Your task to perform on an android device: toggle pop-ups in chrome Image 0: 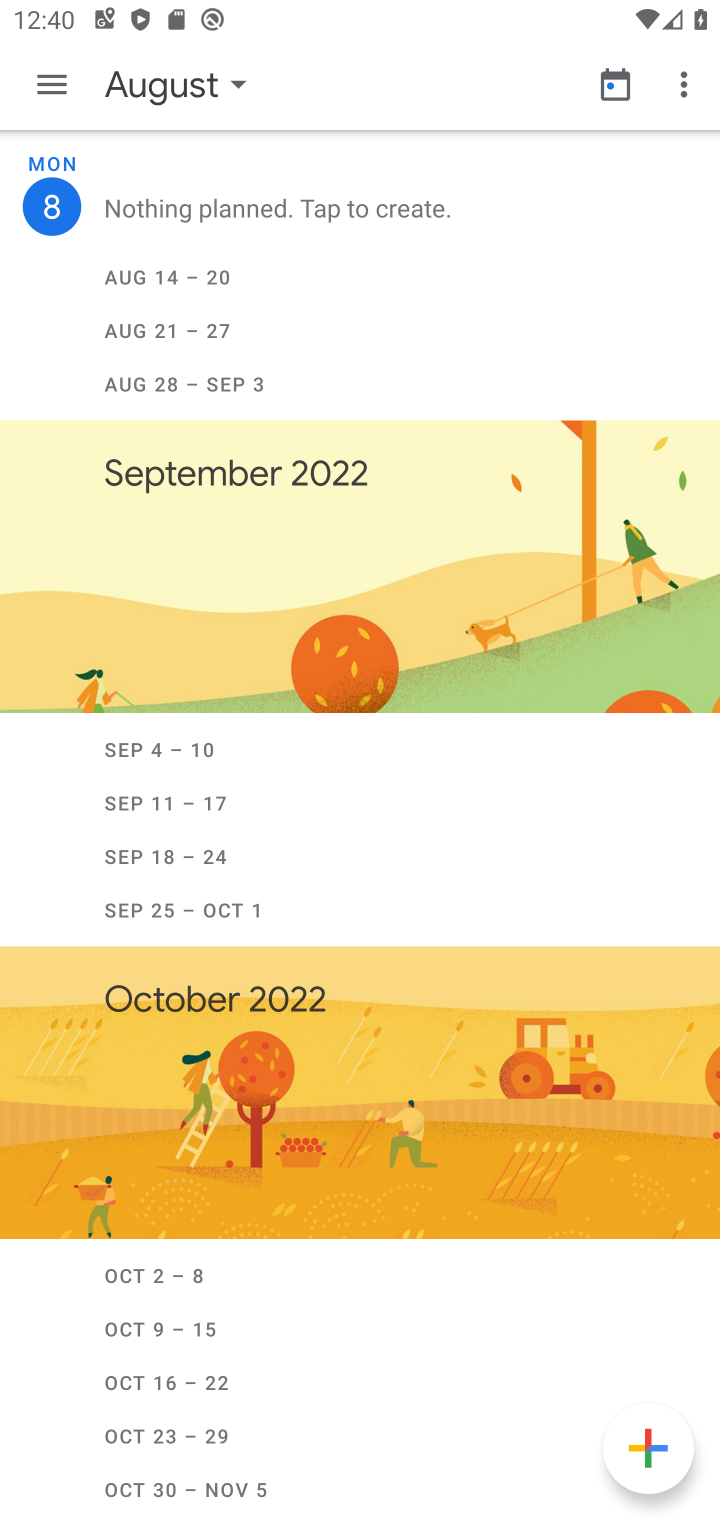
Step 0: press back button
Your task to perform on an android device: toggle pop-ups in chrome Image 1: 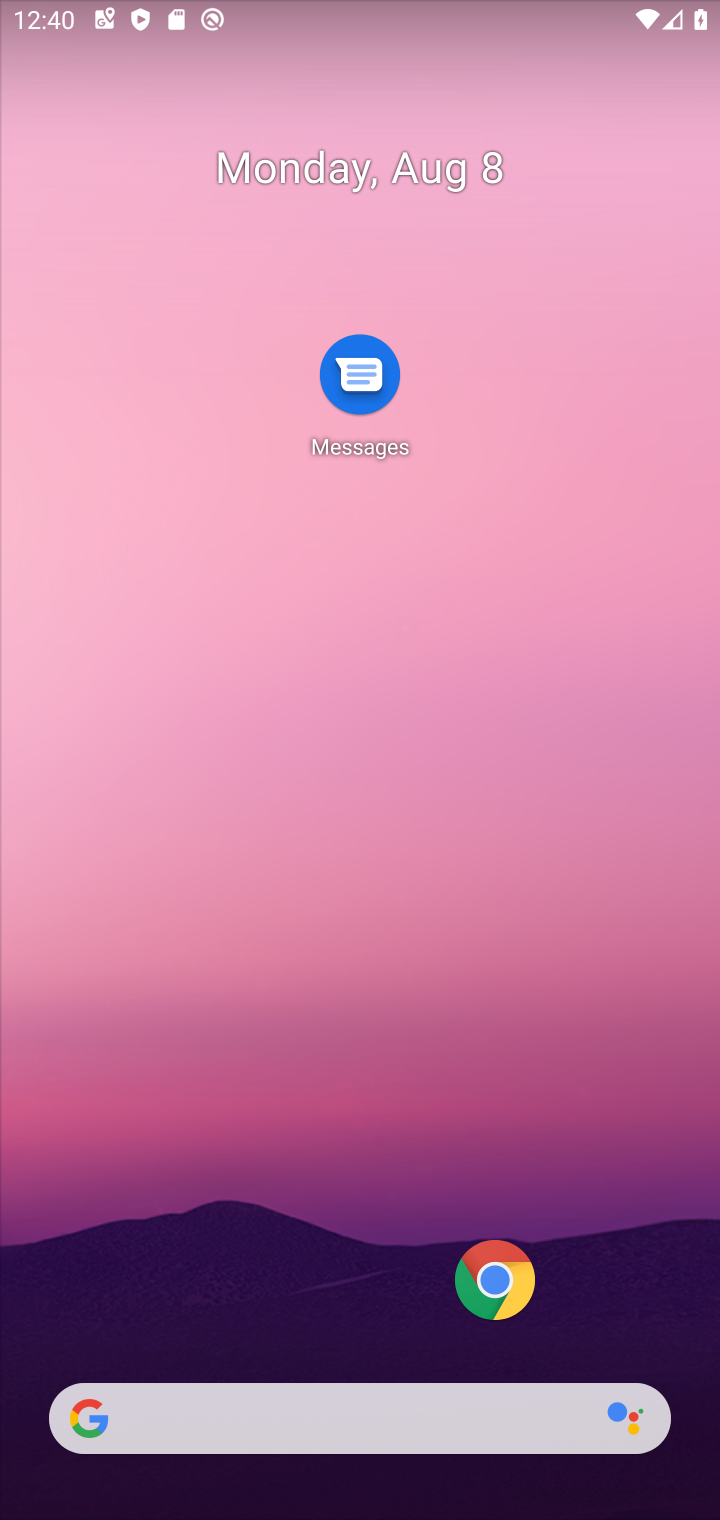
Step 1: click (510, 1276)
Your task to perform on an android device: toggle pop-ups in chrome Image 2: 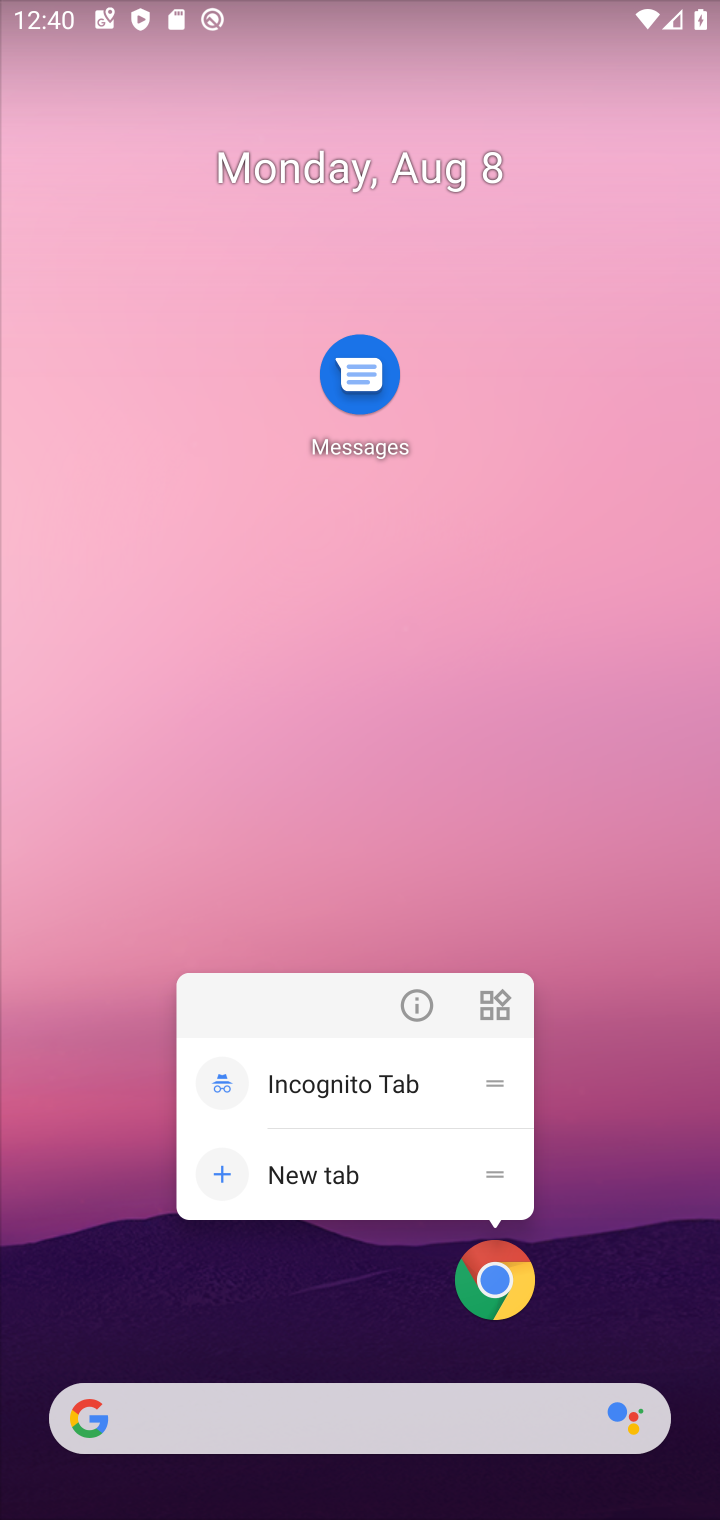
Step 2: click (486, 1278)
Your task to perform on an android device: toggle pop-ups in chrome Image 3: 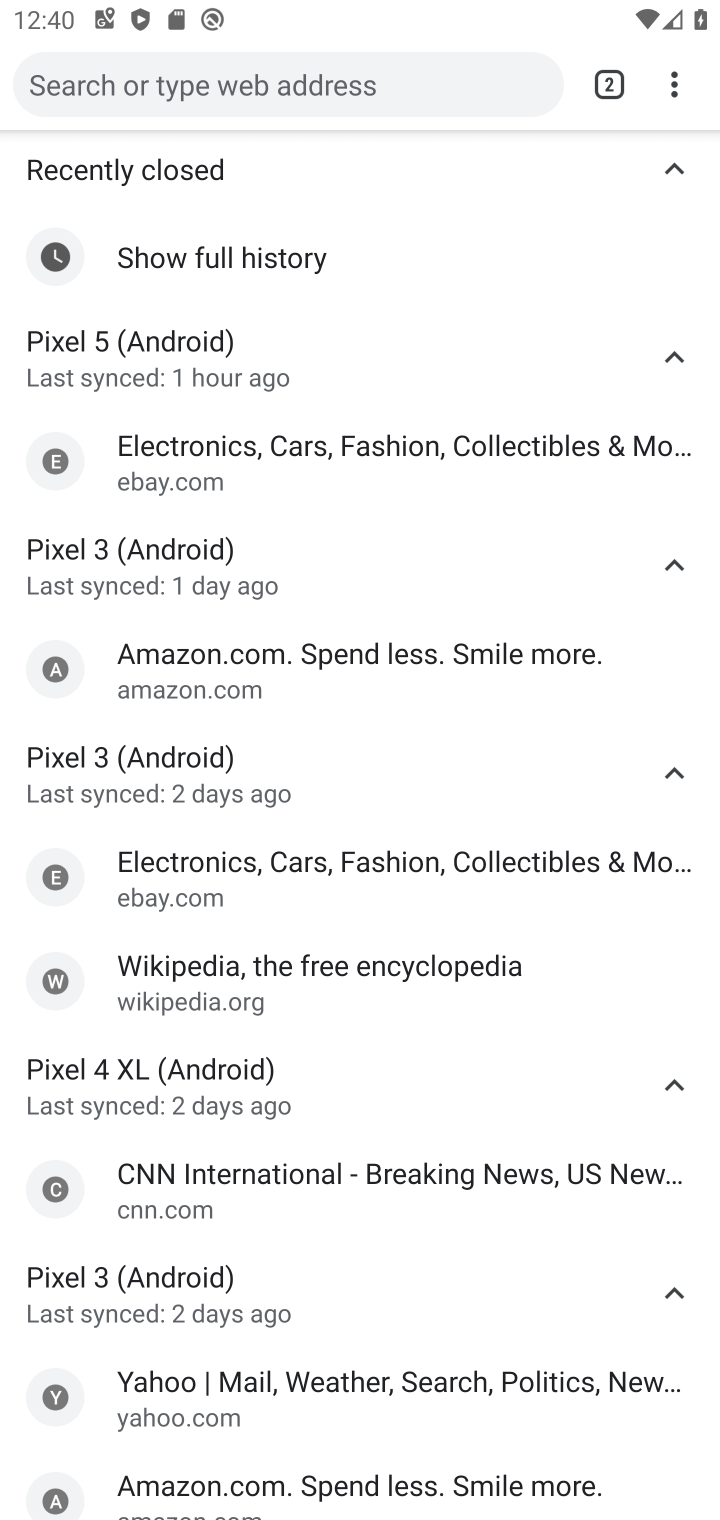
Step 3: drag from (666, 94) to (380, 716)
Your task to perform on an android device: toggle pop-ups in chrome Image 4: 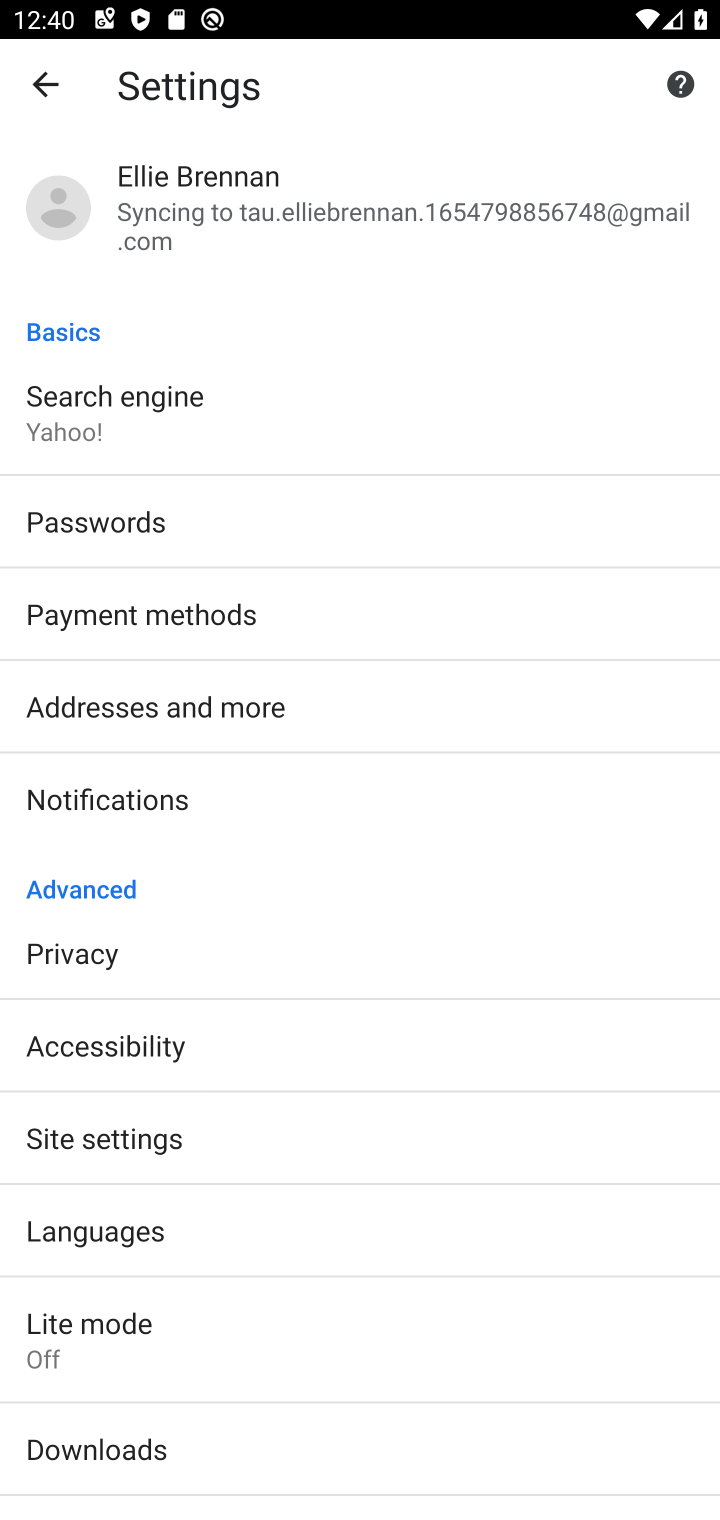
Step 4: drag from (346, 370) to (364, 179)
Your task to perform on an android device: toggle pop-ups in chrome Image 5: 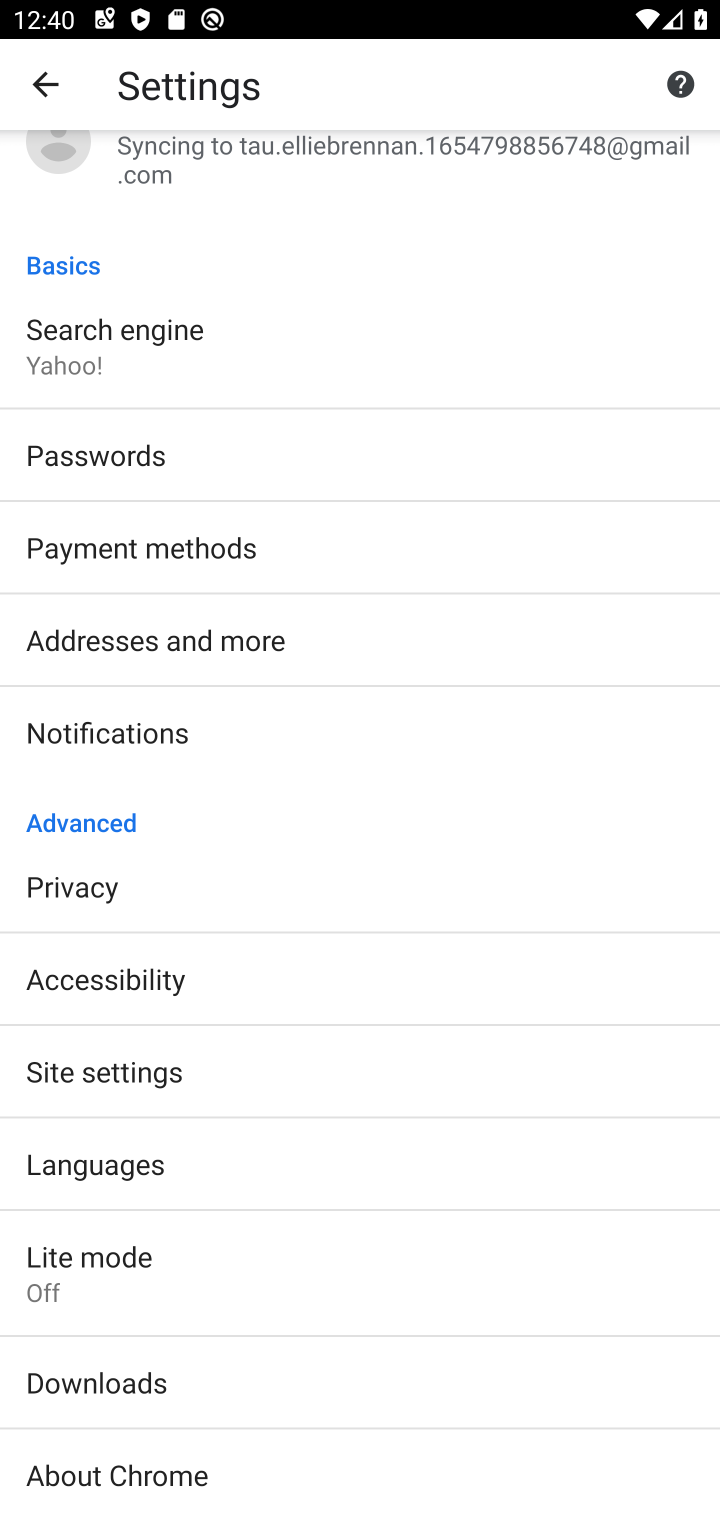
Step 5: click (139, 1070)
Your task to perform on an android device: toggle pop-ups in chrome Image 6: 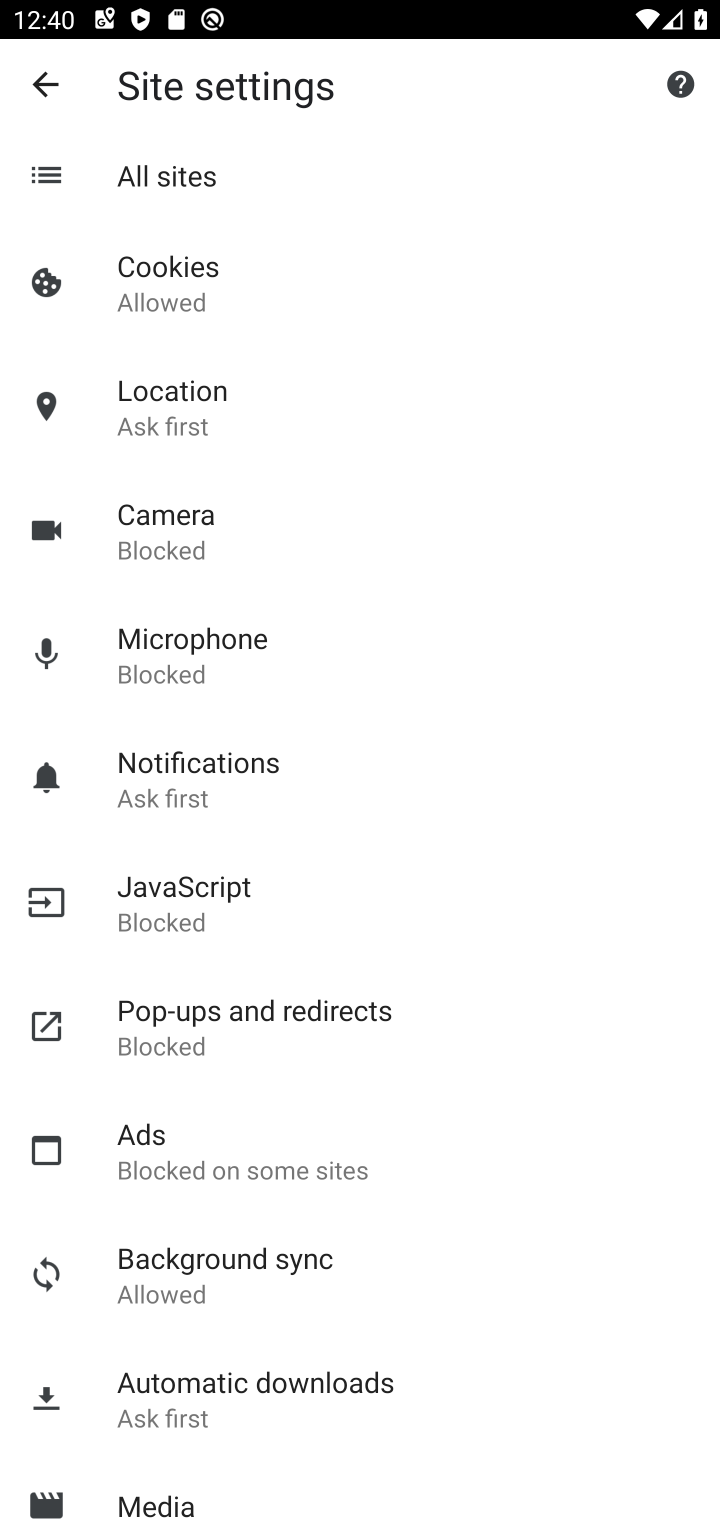
Step 6: click (204, 998)
Your task to perform on an android device: toggle pop-ups in chrome Image 7: 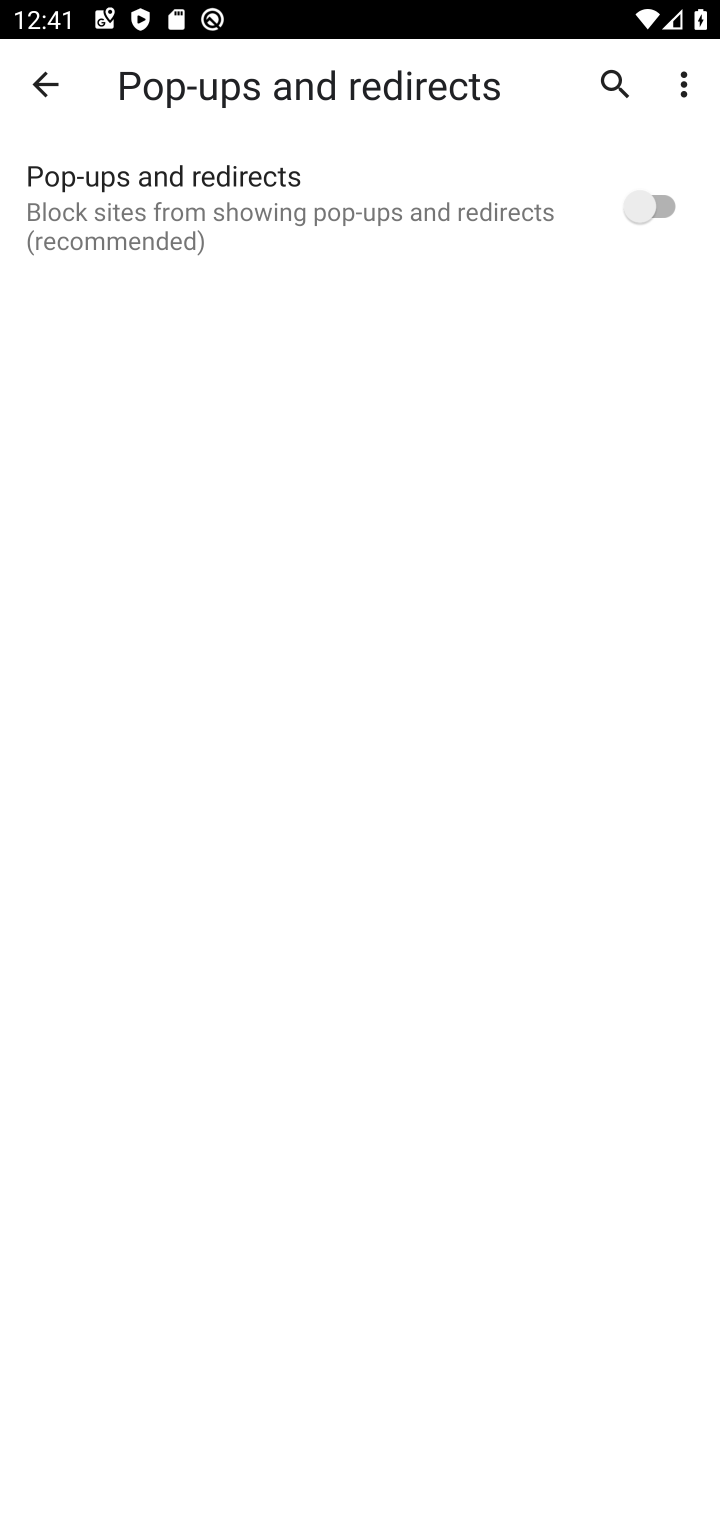
Step 7: click (644, 226)
Your task to perform on an android device: toggle pop-ups in chrome Image 8: 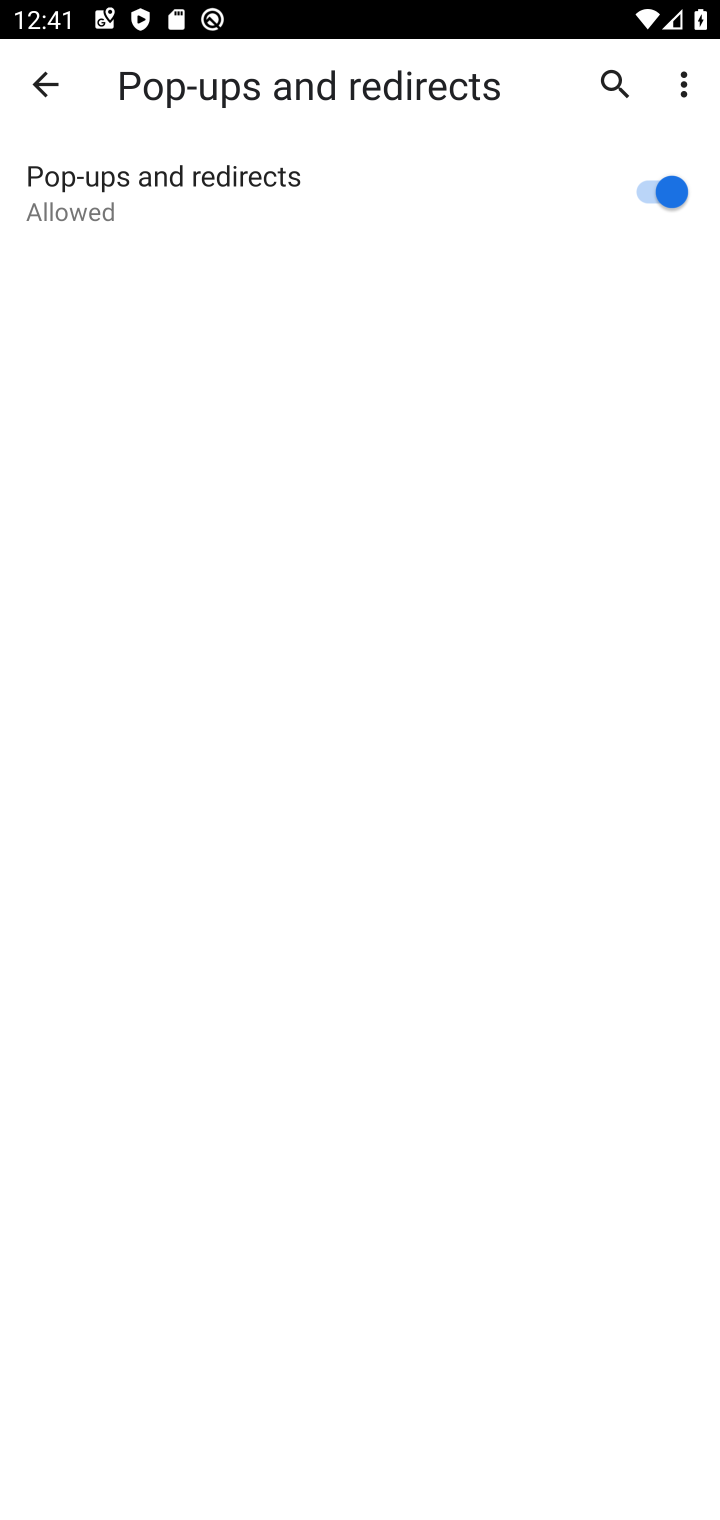
Step 8: task complete